Your task to perform on an android device: find snoozed emails in the gmail app Image 0: 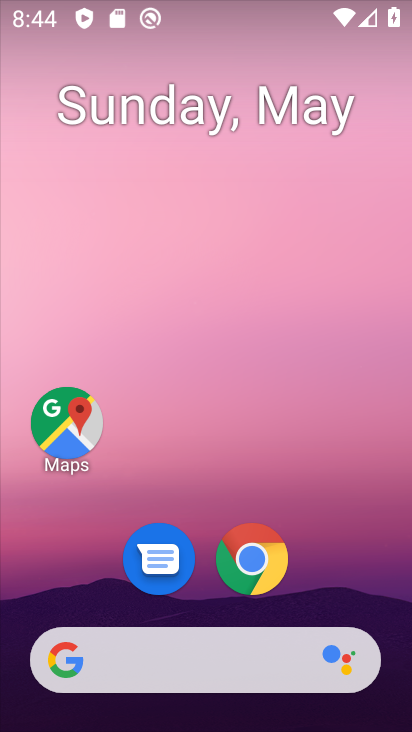
Step 0: drag from (347, 603) to (310, 50)
Your task to perform on an android device: find snoozed emails in the gmail app Image 1: 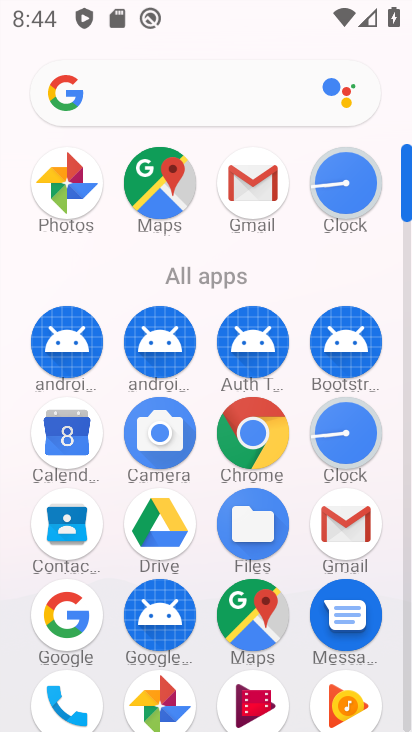
Step 1: click (365, 532)
Your task to perform on an android device: find snoozed emails in the gmail app Image 2: 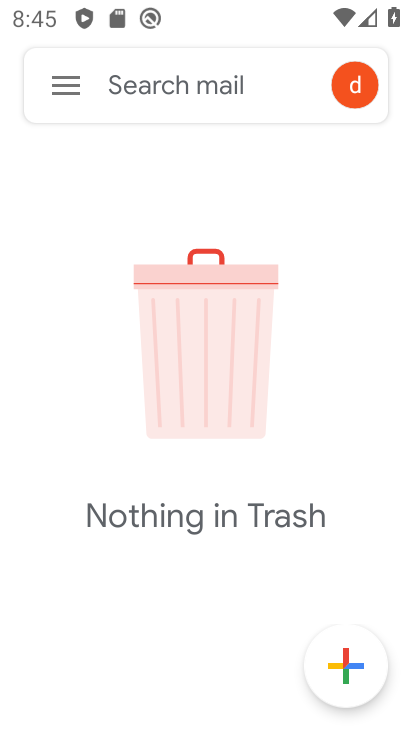
Step 2: click (68, 89)
Your task to perform on an android device: find snoozed emails in the gmail app Image 3: 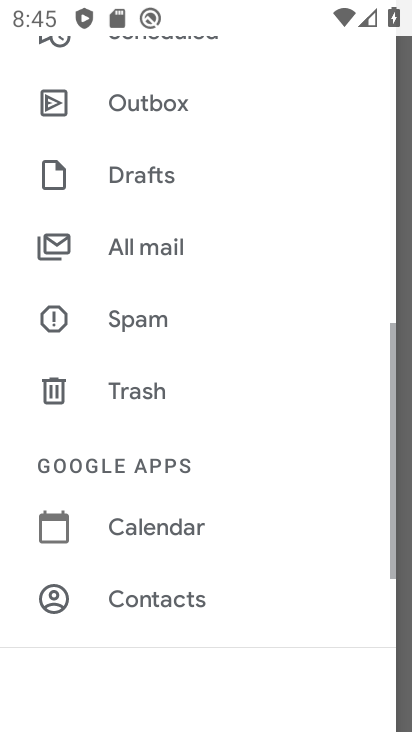
Step 3: drag from (233, 171) to (288, 592)
Your task to perform on an android device: find snoozed emails in the gmail app Image 4: 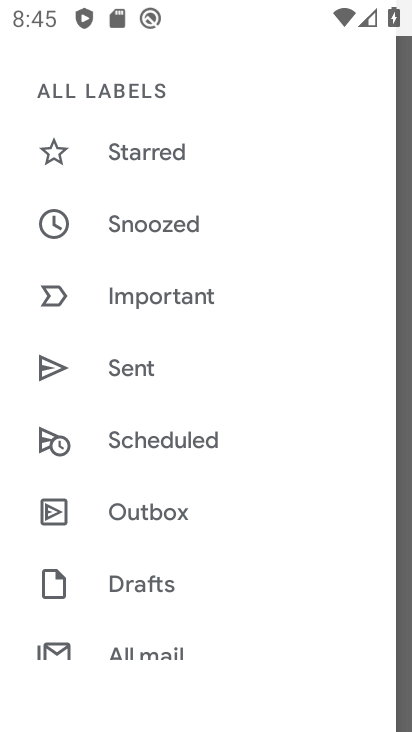
Step 4: click (126, 219)
Your task to perform on an android device: find snoozed emails in the gmail app Image 5: 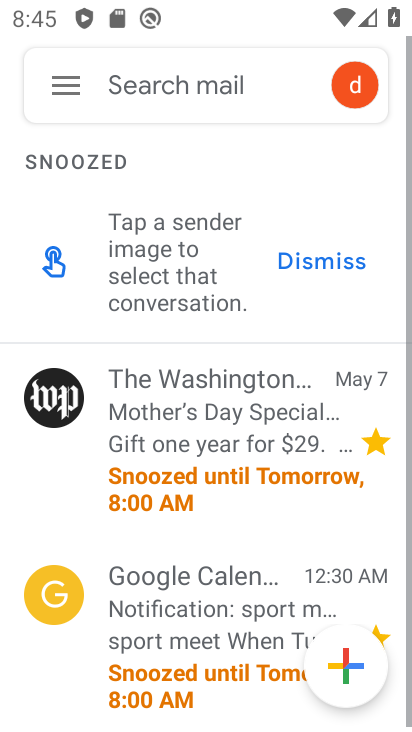
Step 5: task complete